Your task to perform on an android device: Search for vegetarian restaurants on Maps Image 0: 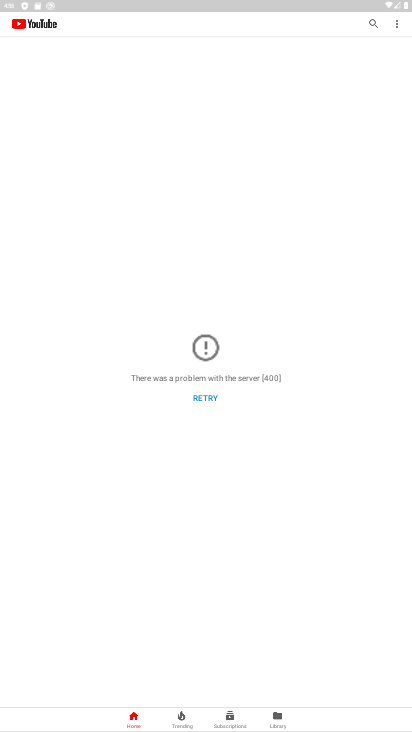
Step 0: press home button
Your task to perform on an android device: Search for vegetarian restaurants on Maps Image 1: 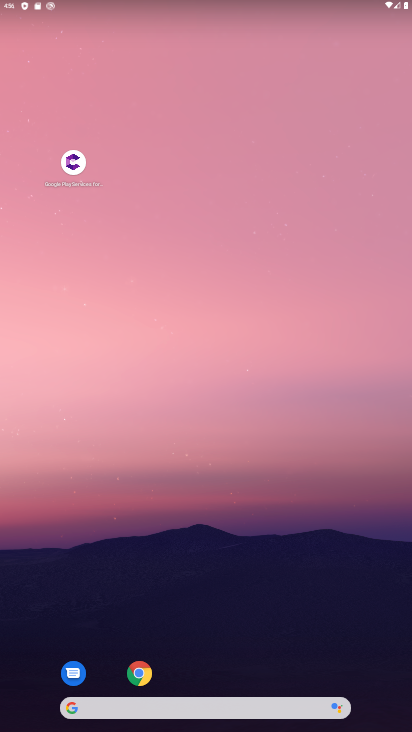
Step 1: drag from (262, 620) to (282, 214)
Your task to perform on an android device: Search for vegetarian restaurants on Maps Image 2: 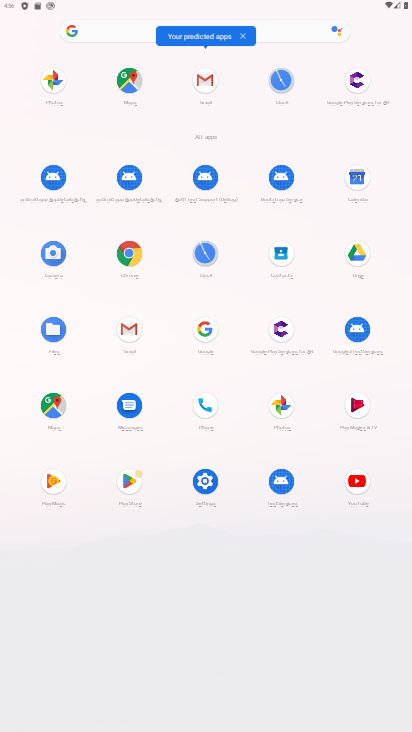
Step 2: click (49, 406)
Your task to perform on an android device: Search for vegetarian restaurants on Maps Image 3: 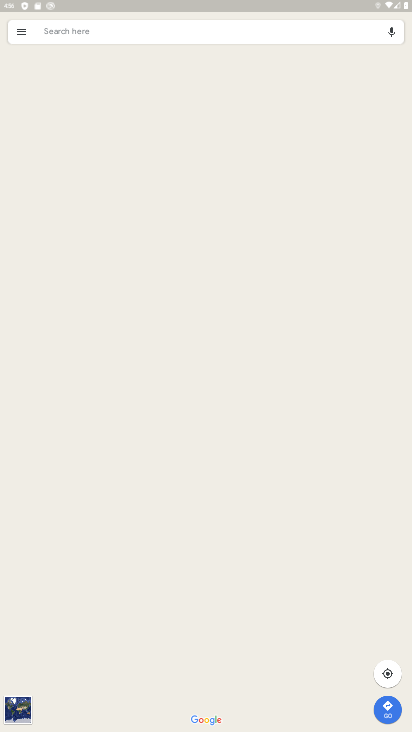
Step 3: click (120, 26)
Your task to perform on an android device: Search for vegetarian restaurants on Maps Image 4: 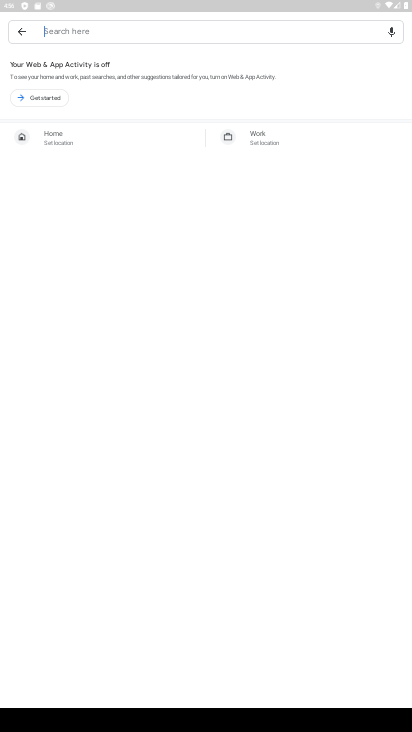
Step 4: type "vegetarian restaurants "
Your task to perform on an android device: Search for vegetarian restaurants on Maps Image 5: 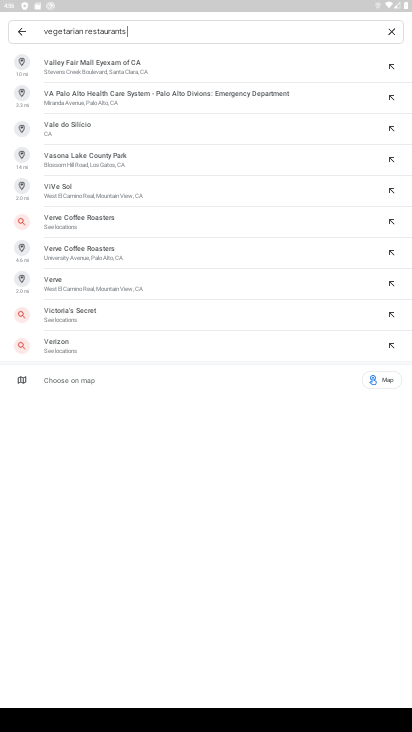
Step 5: type ""
Your task to perform on an android device: Search for vegetarian restaurants on Maps Image 6: 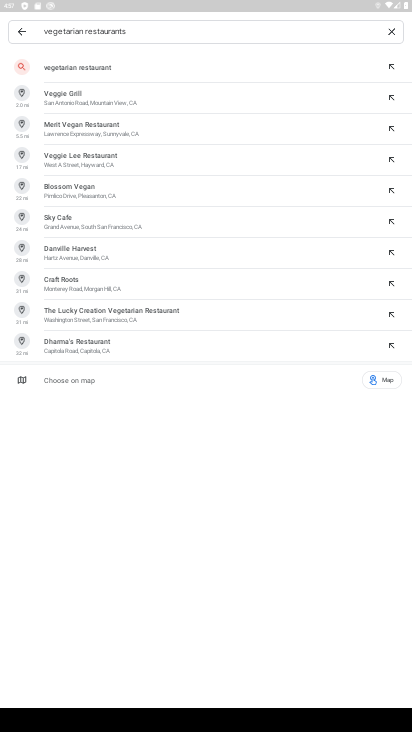
Step 6: press enter
Your task to perform on an android device: Search for vegetarian restaurants on Maps Image 7: 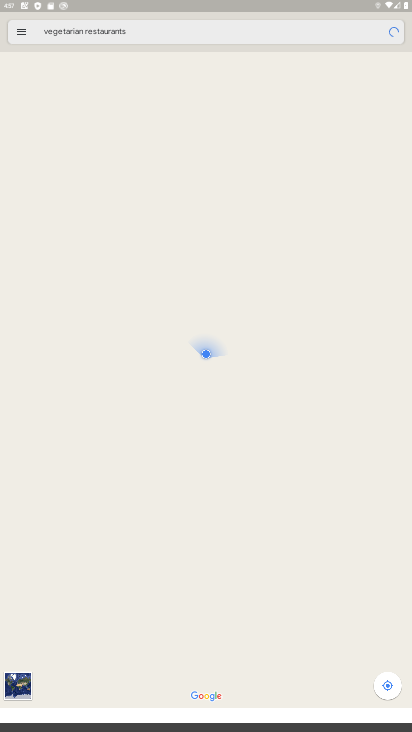
Step 7: type ""
Your task to perform on an android device: Search for vegetarian restaurants on Maps Image 8: 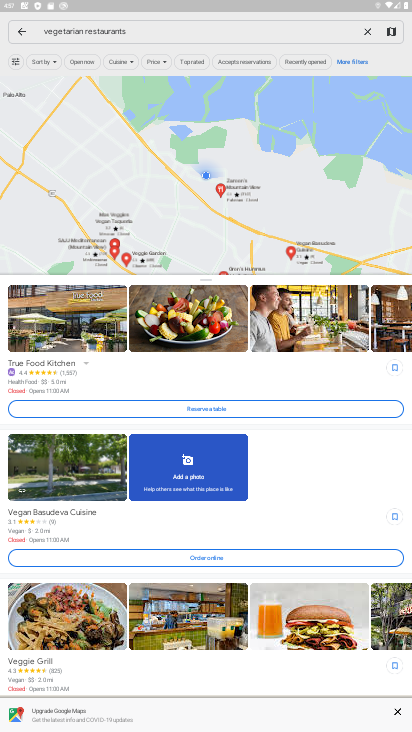
Step 8: task complete